Your task to perform on an android device: empty trash in the gmail app Image 0: 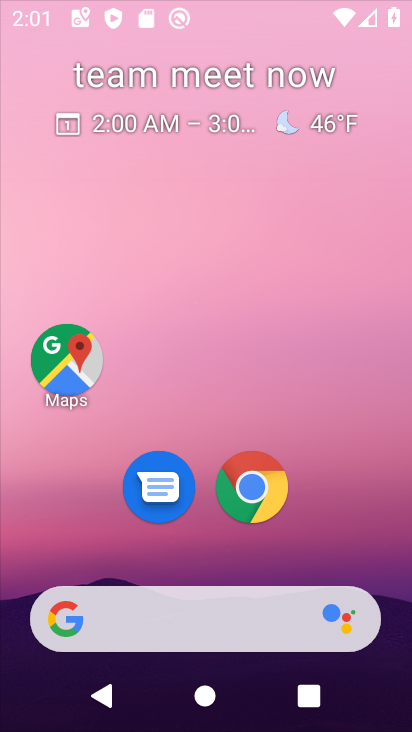
Step 0: click (288, 113)
Your task to perform on an android device: empty trash in the gmail app Image 1: 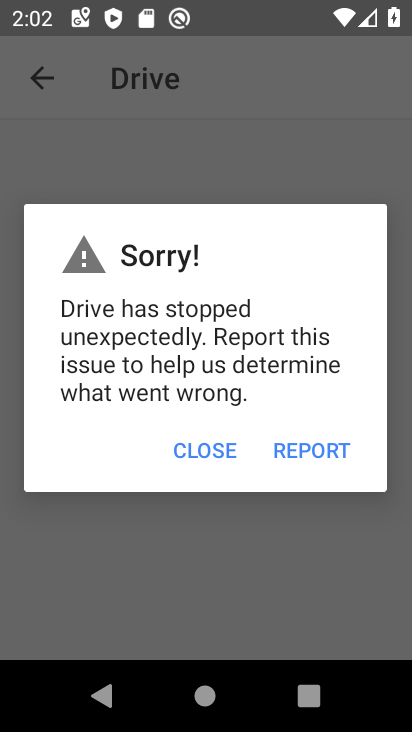
Step 1: press home button
Your task to perform on an android device: empty trash in the gmail app Image 2: 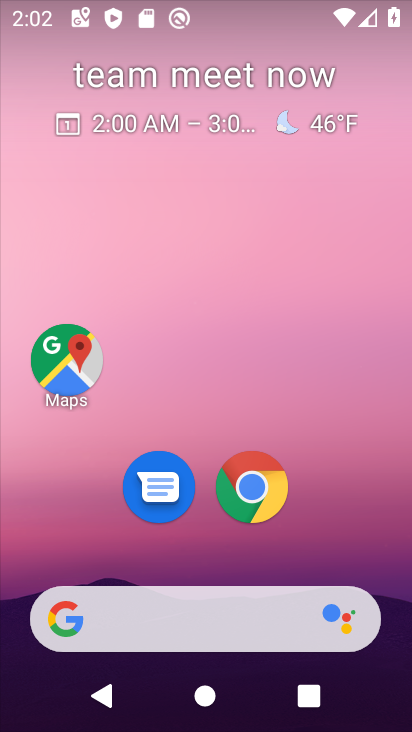
Step 2: drag from (321, 548) to (275, 158)
Your task to perform on an android device: empty trash in the gmail app Image 3: 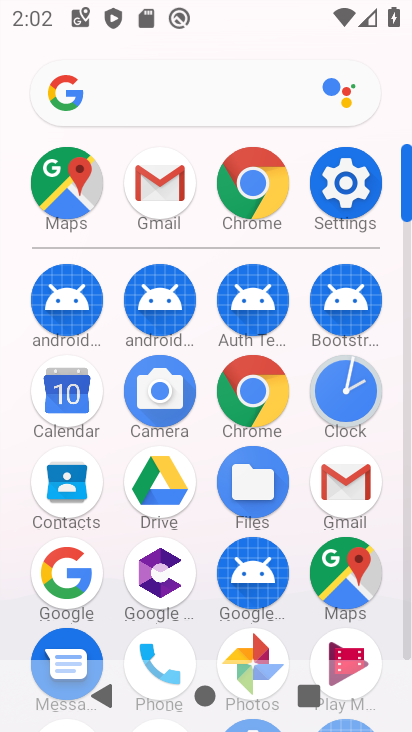
Step 3: click (335, 483)
Your task to perform on an android device: empty trash in the gmail app Image 4: 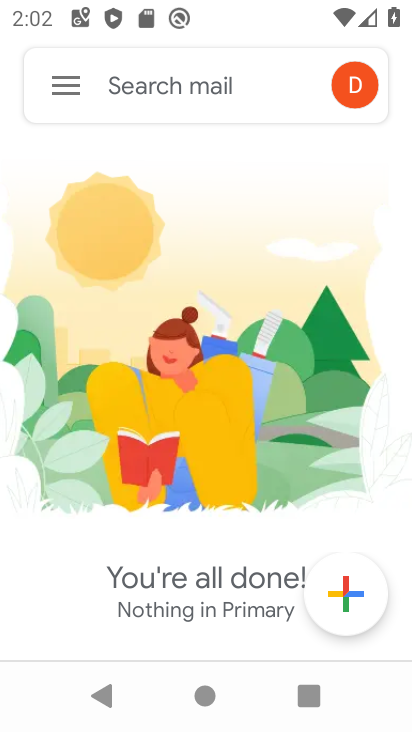
Step 4: click (63, 83)
Your task to perform on an android device: empty trash in the gmail app Image 5: 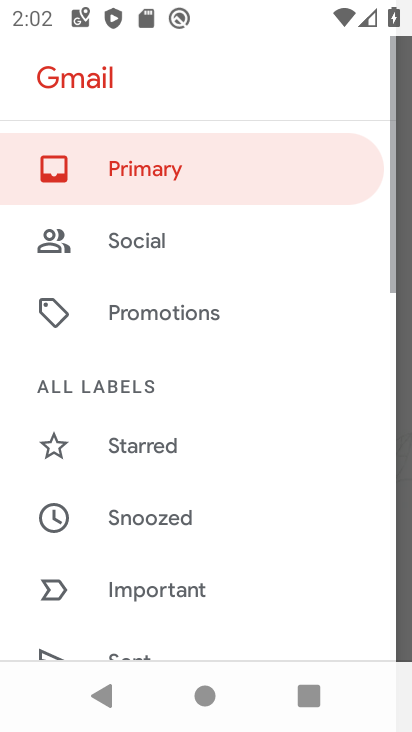
Step 5: drag from (210, 582) to (242, 175)
Your task to perform on an android device: empty trash in the gmail app Image 6: 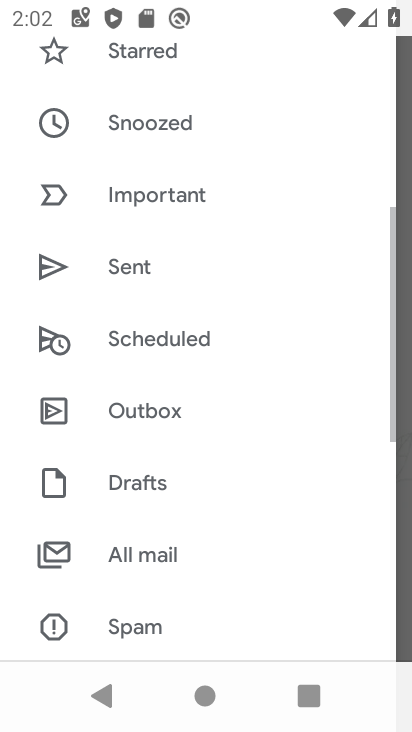
Step 6: drag from (180, 392) to (221, 256)
Your task to perform on an android device: empty trash in the gmail app Image 7: 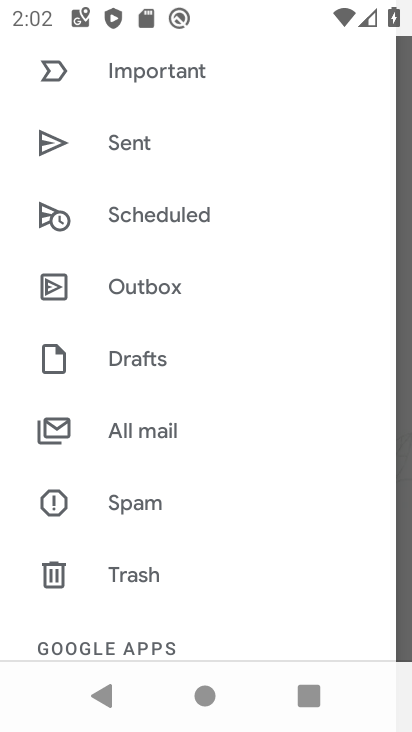
Step 7: click (131, 573)
Your task to perform on an android device: empty trash in the gmail app Image 8: 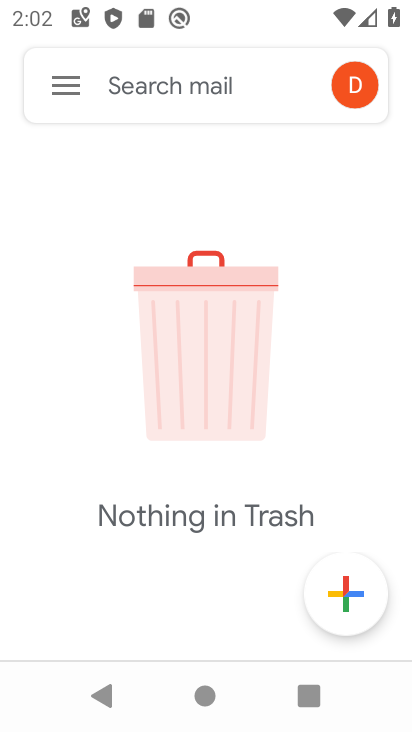
Step 8: click (61, 78)
Your task to perform on an android device: empty trash in the gmail app Image 9: 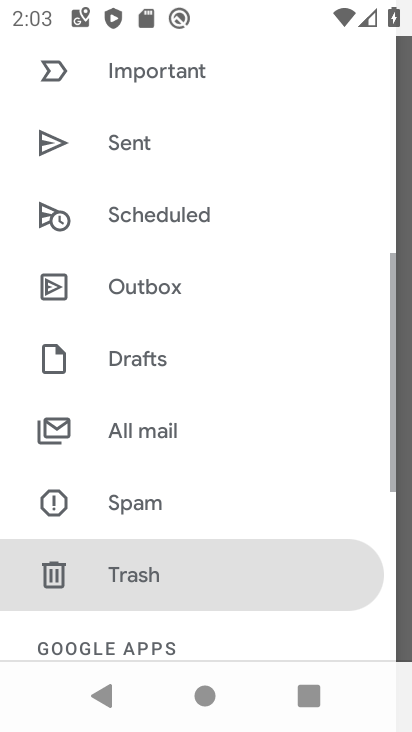
Step 9: drag from (229, 189) to (193, 387)
Your task to perform on an android device: empty trash in the gmail app Image 10: 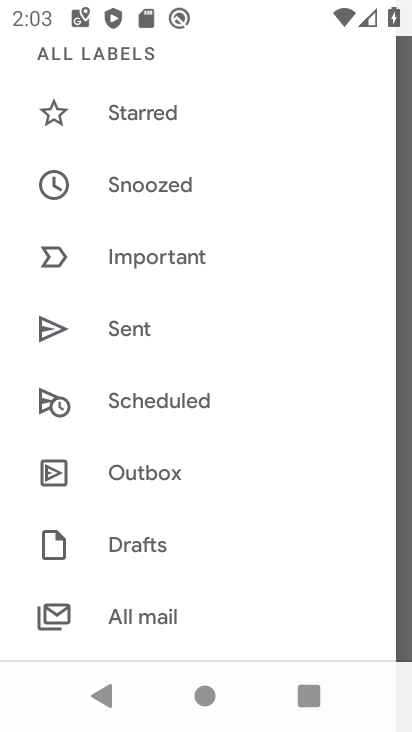
Step 10: click (142, 615)
Your task to perform on an android device: empty trash in the gmail app Image 11: 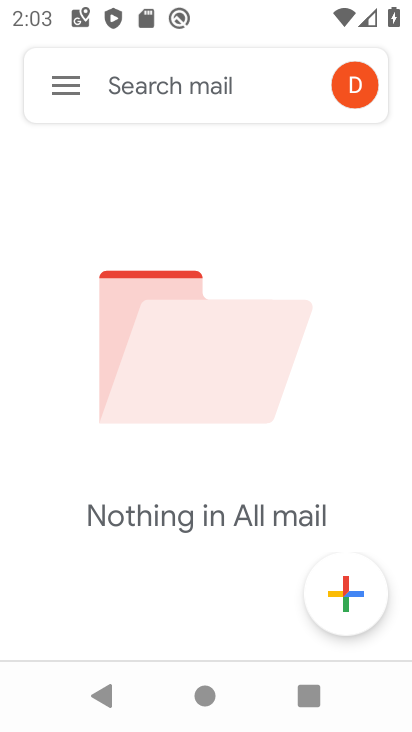
Step 11: task complete